Your task to perform on an android device: Open the map Image 0: 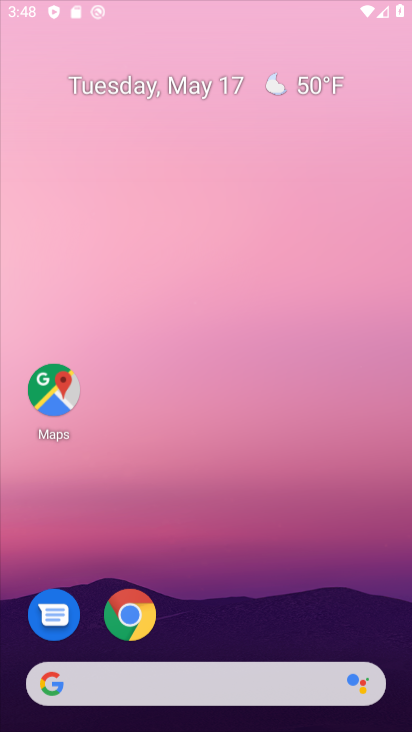
Step 0: click (264, 130)
Your task to perform on an android device: Open the map Image 1: 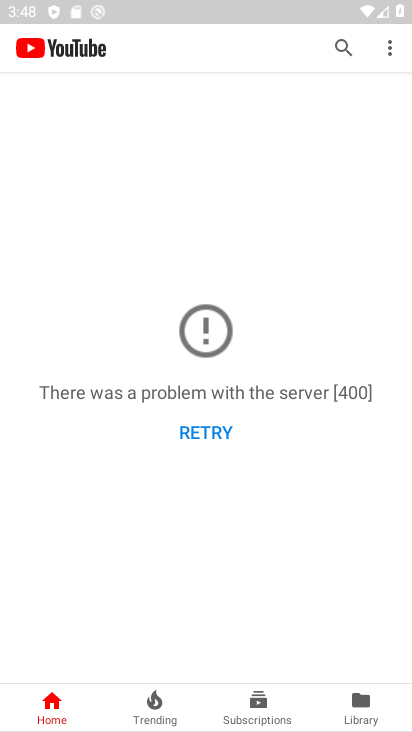
Step 1: press home button
Your task to perform on an android device: Open the map Image 2: 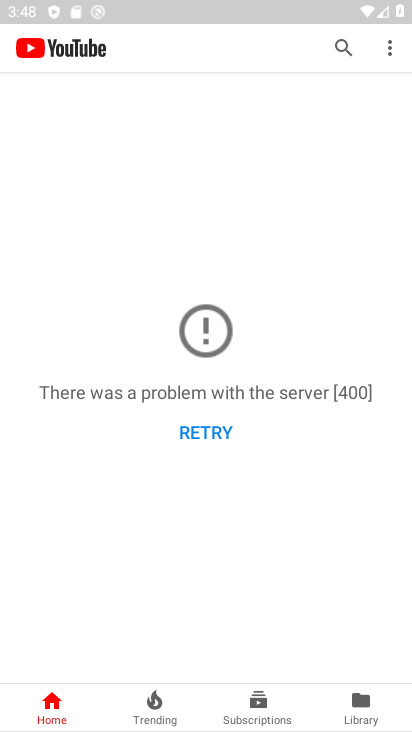
Step 2: press home button
Your task to perform on an android device: Open the map Image 3: 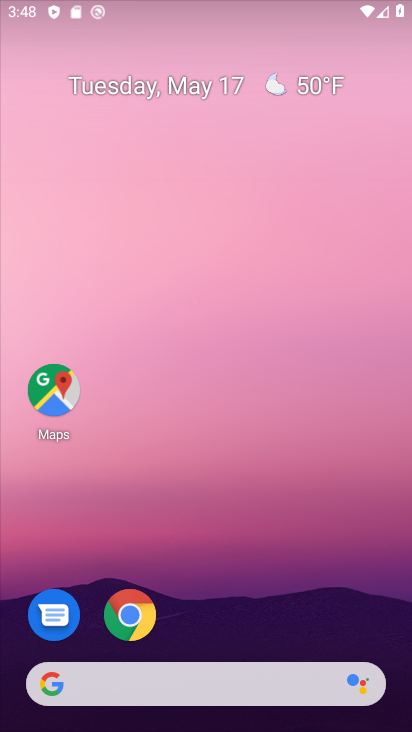
Step 3: press home button
Your task to perform on an android device: Open the map Image 4: 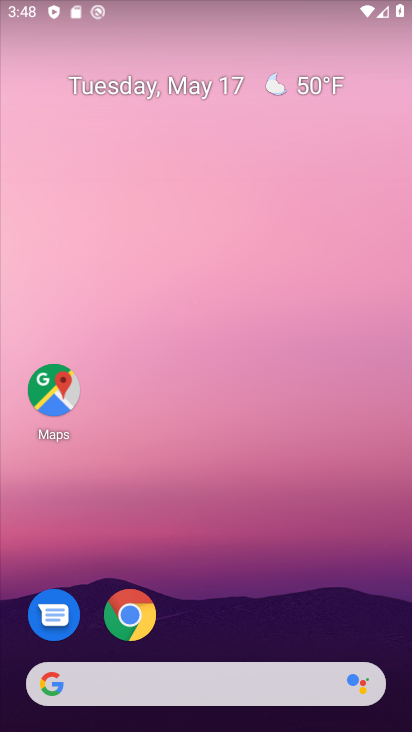
Step 4: drag from (321, 596) to (213, 296)
Your task to perform on an android device: Open the map Image 5: 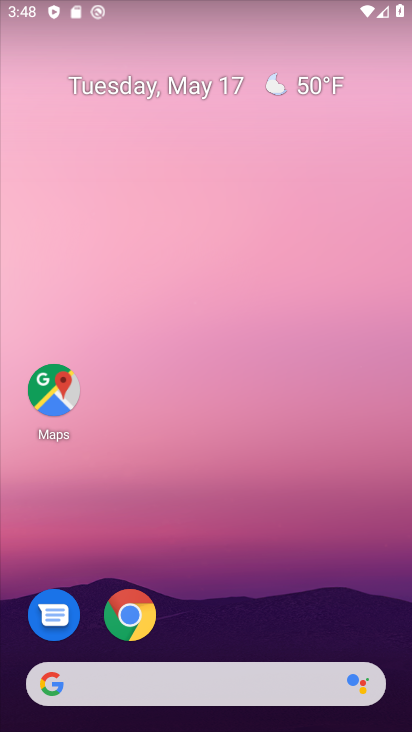
Step 5: drag from (258, 595) to (206, 68)
Your task to perform on an android device: Open the map Image 6: 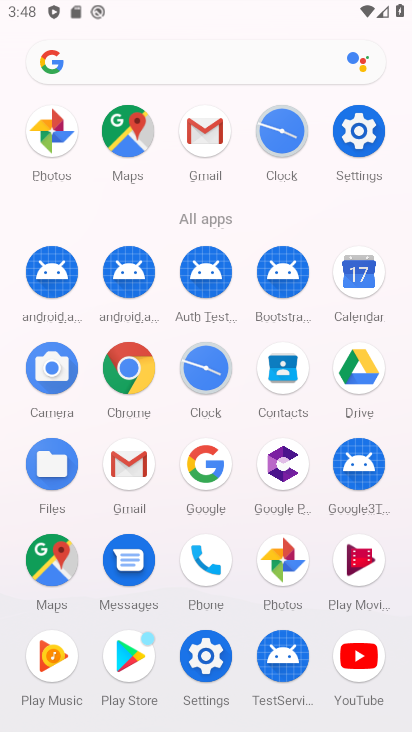
Step 6: click (122, 133)
Your task to perform on an android device: Open the map Image 7: 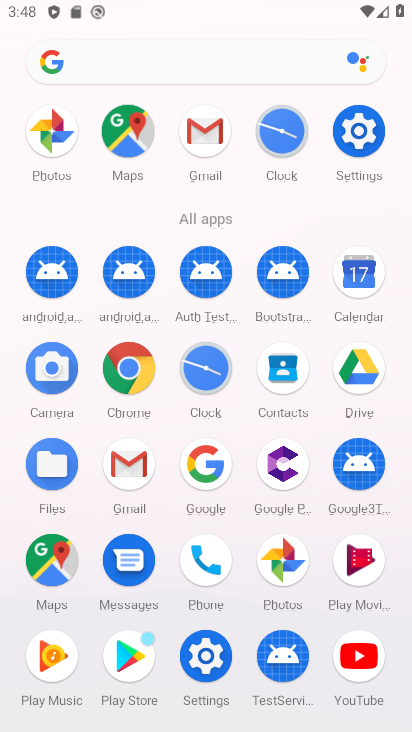
Step 7: click (122, 133)
Your task to perform on an android device: Open the map Image 8: 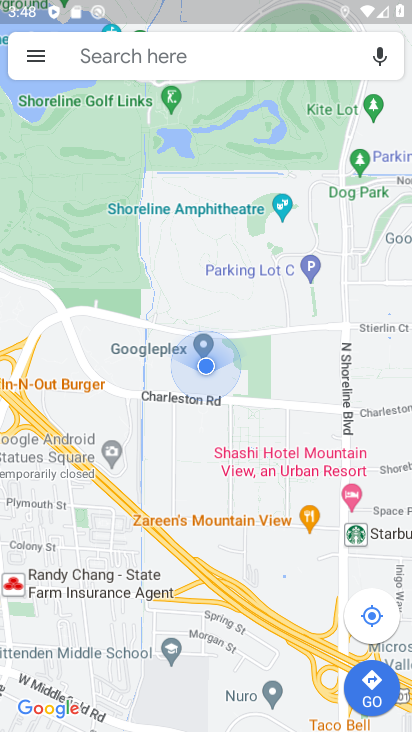
Step 8: task complete